Your task to perform on an android device: delete a single message in the gmail app Image 0: 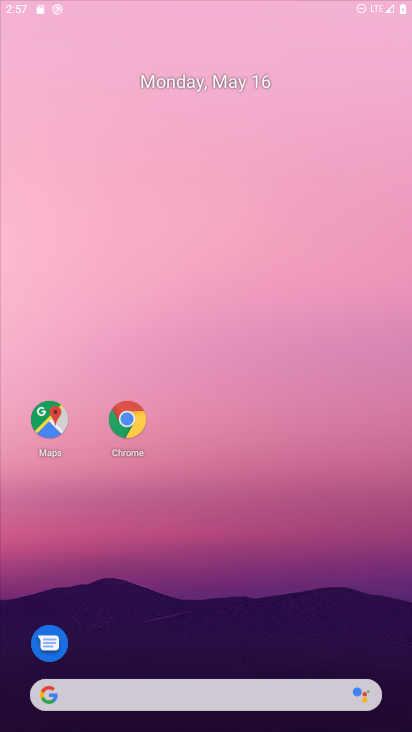
Step 0: click (201, 132)
Your task to perform on an android device: delete a single message in the gmail app Image 1: 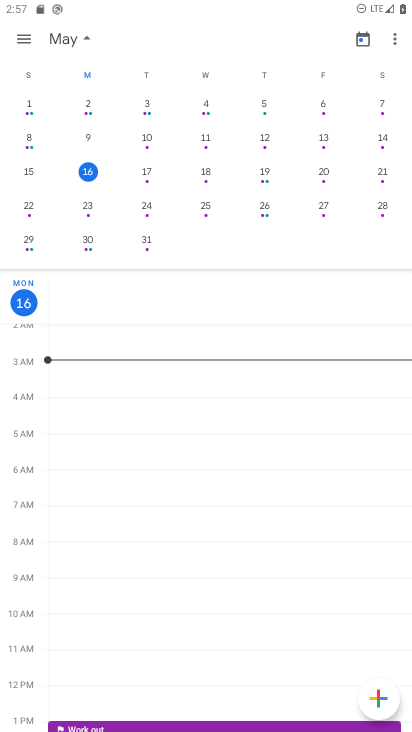
Step 1: drag from (176, 626) to (188, 92)
Your task to perform on an android device: delete a single message in the gmail app Image 2: 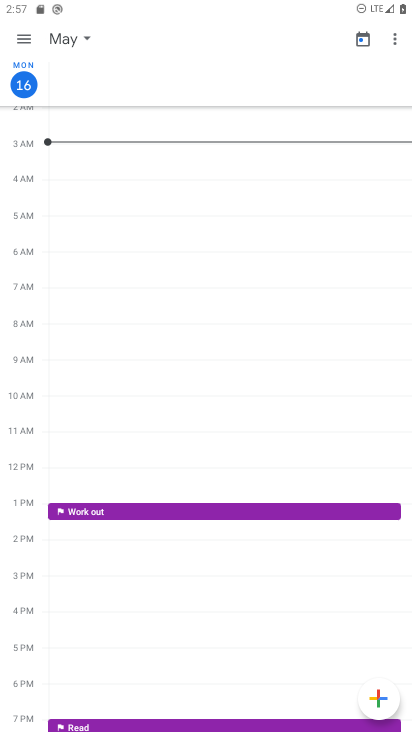
Step 2: press home button
Your task to perform on an android device: delete a single message in the gmail app Image 3: 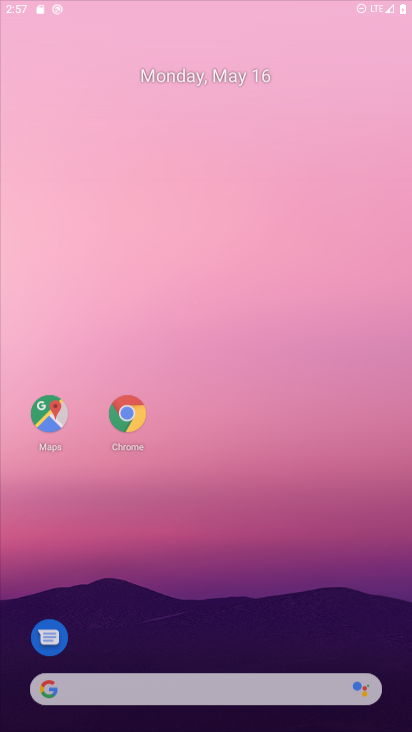
Step 3: drag from (222, 662) to (250, 148)
Your task to perform on an android device: delete a single message in the gmail app Image 4: 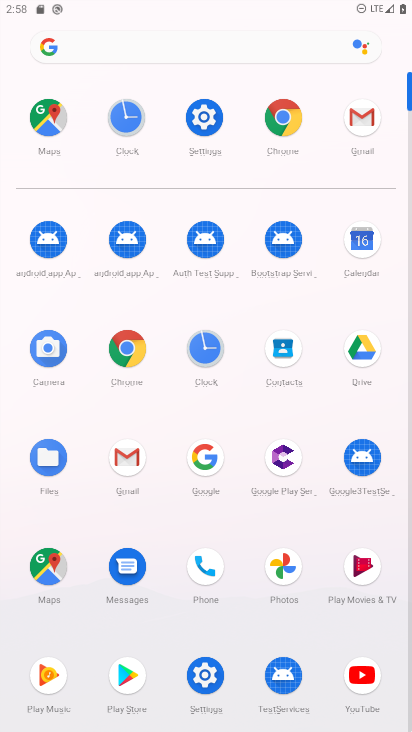
Step 4: click (127, 458)
Your task to perform on an android device: delete a single message in the gmail app Image 5: 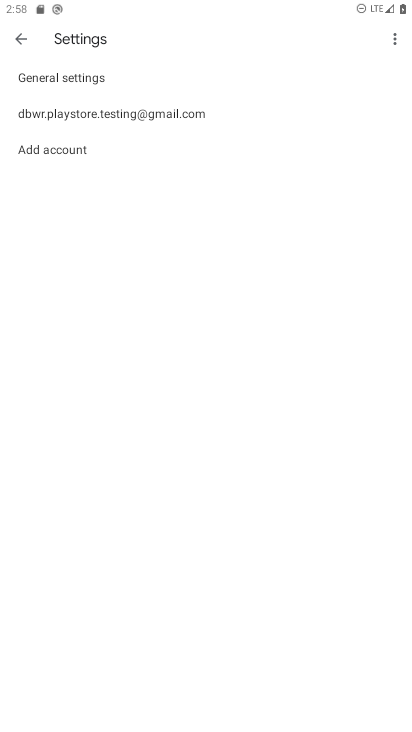
Step 5: click (143, 113)
Your task to perform on an android device: delete a single message in the gmail app Image 6: 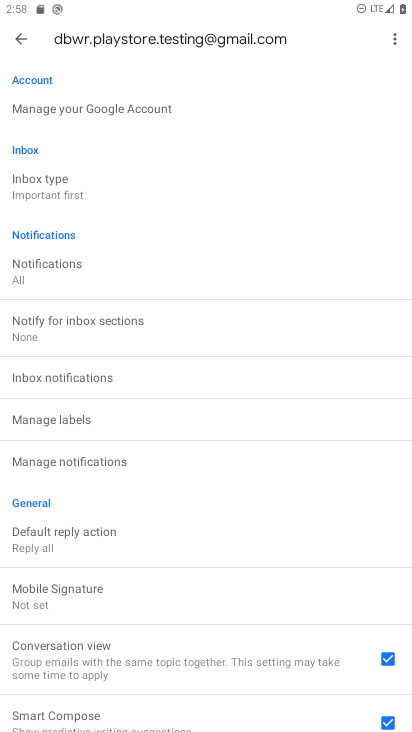
Step 6: drag from (191, 564) to (192, 301)
Your task to perform on an android device: delete a single message in the gmail app Image 7: 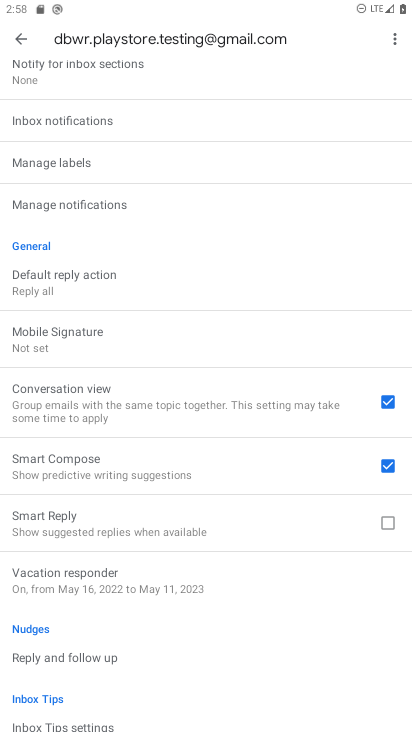
Step 7: drag from (159, 213) to (294, 731)
Your task to perform on an android device: delete a single message in the gmail app Image 8: 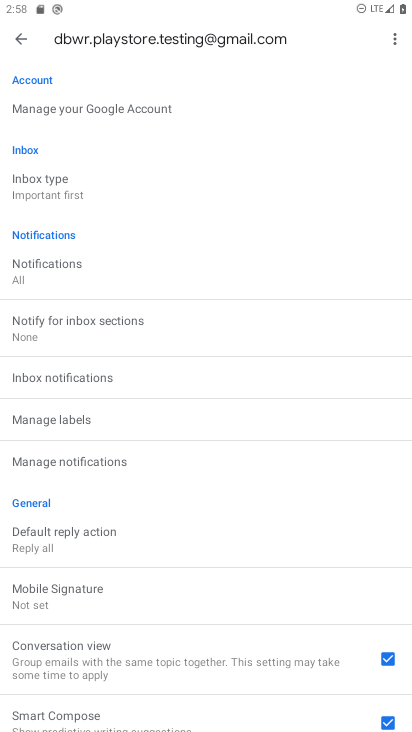
Step 8: click (13, 33)
Your task to perform on an android device: delete a single message in the gmail app Image 9: 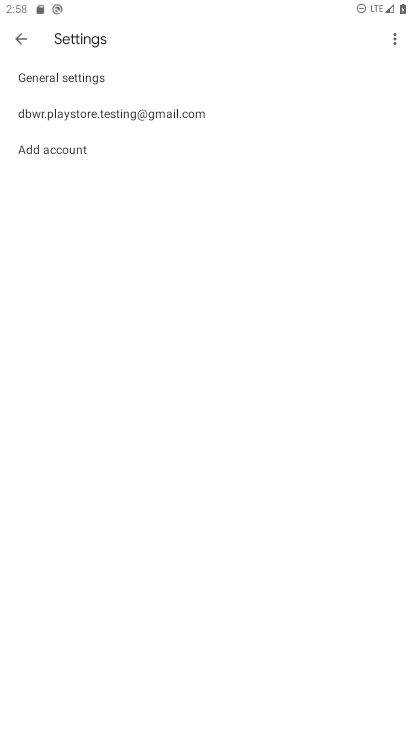
Step 9: click (13, 33)
Your task to perform on an android device: delete a single message in the gmail app Image 10: 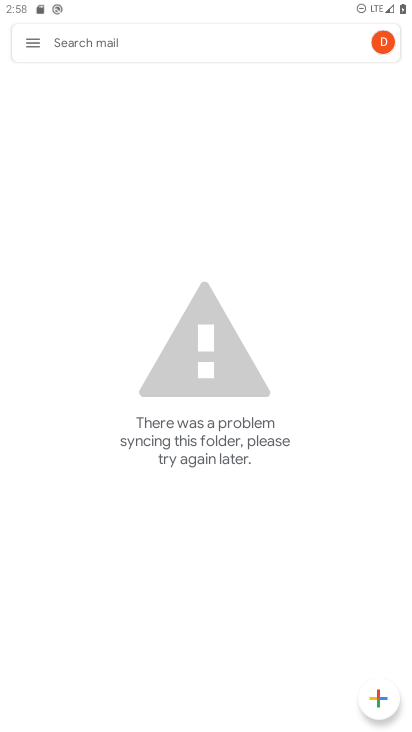
Step 10: click (20, 39)
Your task to perform on an android device: delete a single message in the gmail app Image 11: 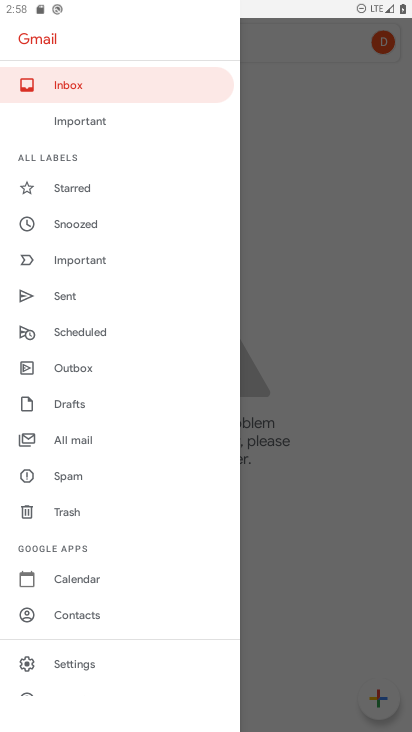
Step 11: drag from (101, 149) to (185, 590)
Your task to perform on an android device: delete a single message in the gmail app Image 12: 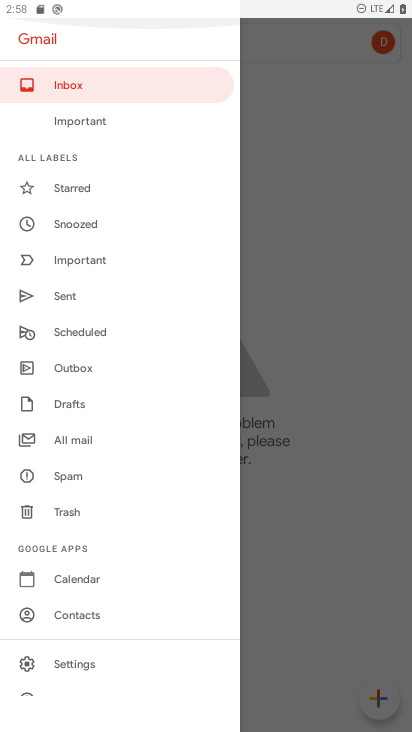
Step 12: drag from (117, 380) to (107, 187)
Your task to perform on an android device: delete a single message in the gmail app Image 13: 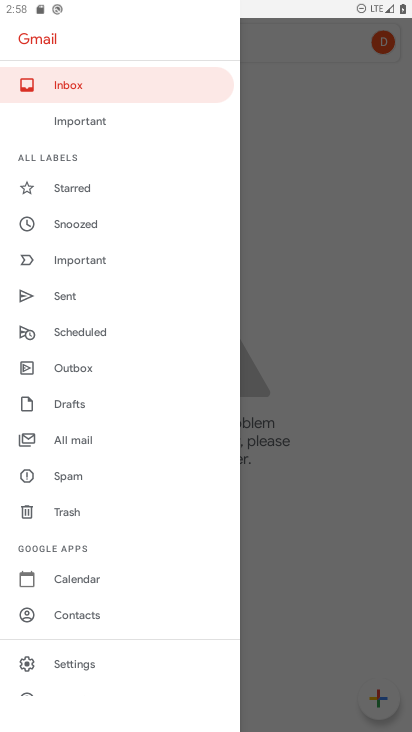
Step 13: drag from (118, 162) to (139, 710)
Your task to perform on an android device: delete a single message in the gmail app Image 14: 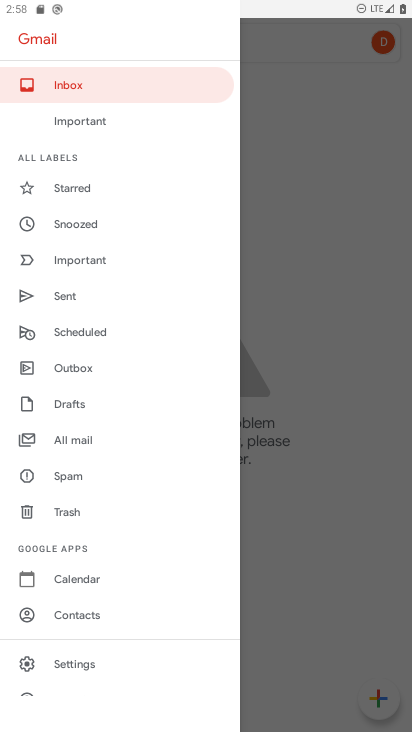
Step 14: drag from (144, 569) to (178, 129)
Your task to perform on an android device: delete a single message in the gmail app Image 15: 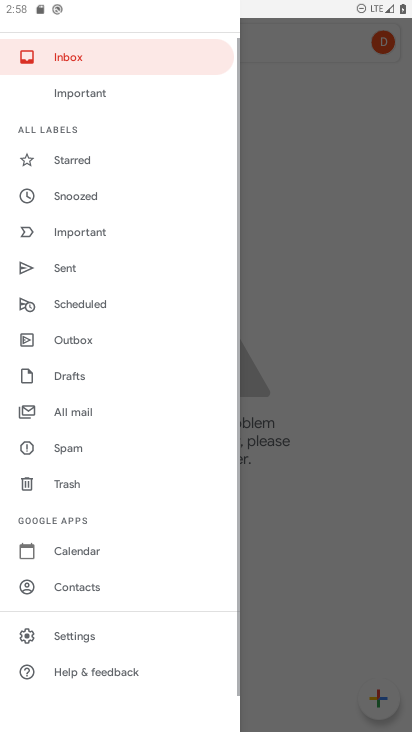
Step 15: drag from (113, 167) to (125, 613)
Your task to perform on an android device: delete a single message in the gmail app Image 16: 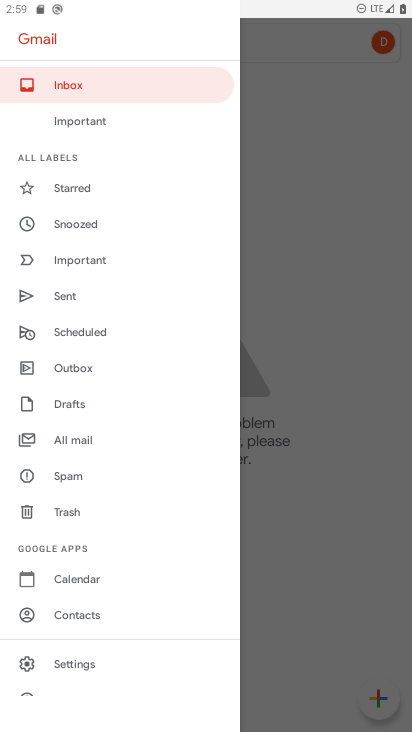
Step 16: click (367, 202)
Your task to perform on an android device: delete a single message in the gmail app Image 17: 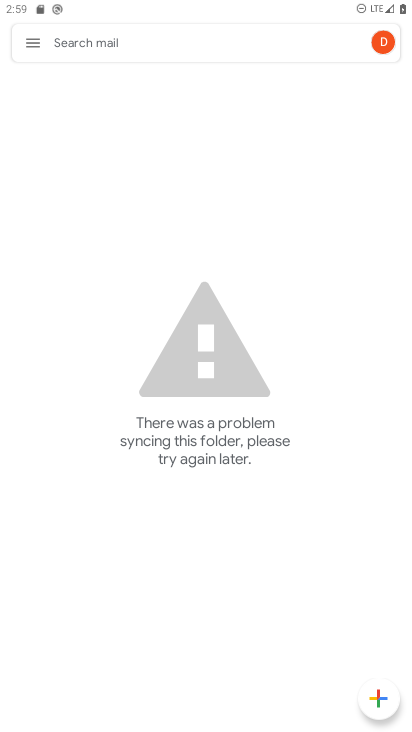
Step 17: task complete